Your task to perform on an android device: Open Google Maps Image 0: 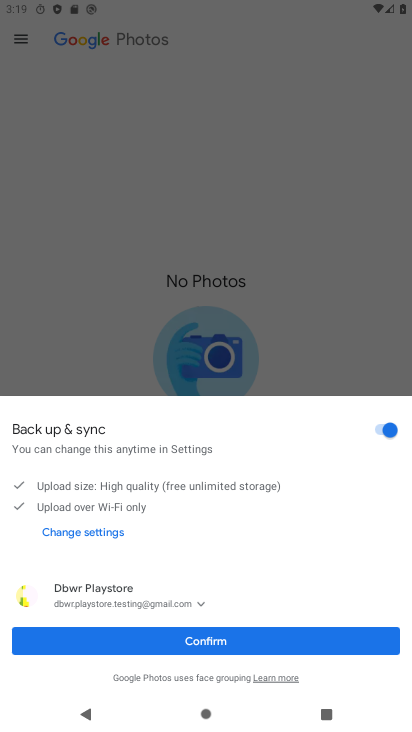
Step 0: press home button
Your task to perform on an android device: Open Google Maps Image 1: 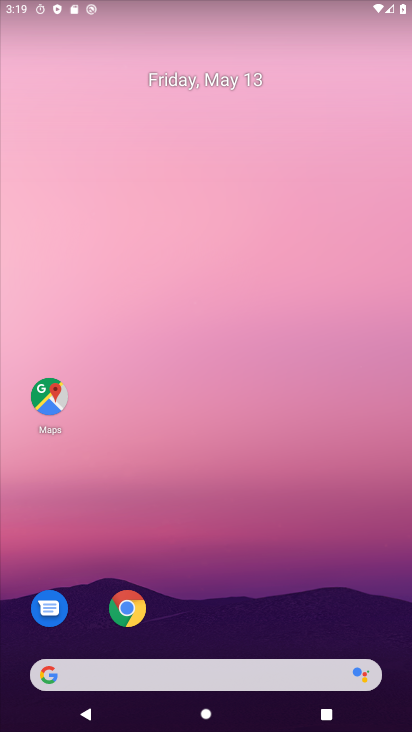
Step 1: click (46, 390)
Your task to perform on an android device: Open Google Maps Image 2: 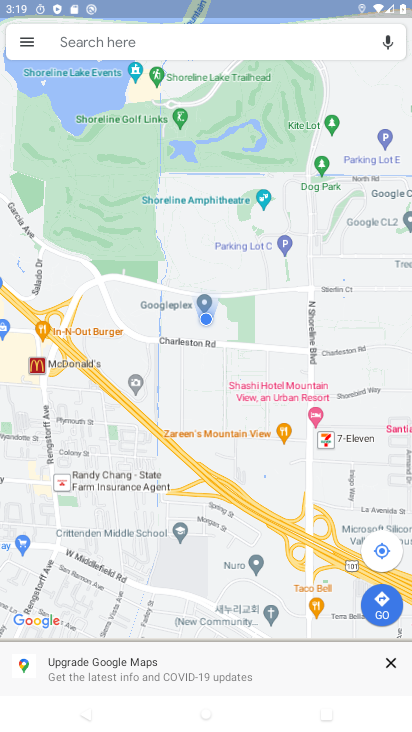
Step 2: task complete